Your task to perform on an android device: Open the calendar and show me this week's events? Image 0: 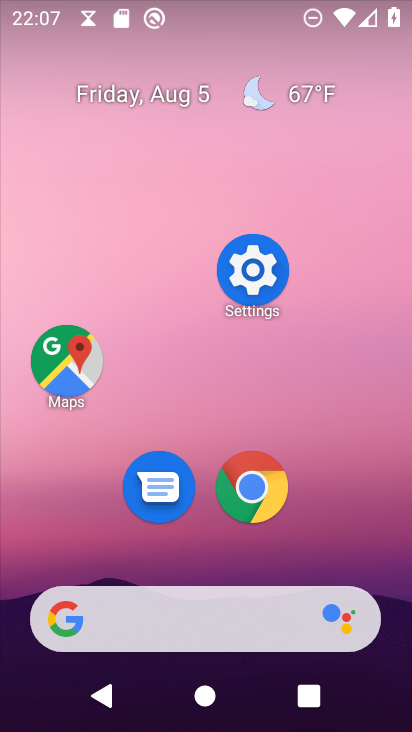
Step 0: press home button
Your task to perform on an android device: Open the calendar and show me this week's events? Image 1: 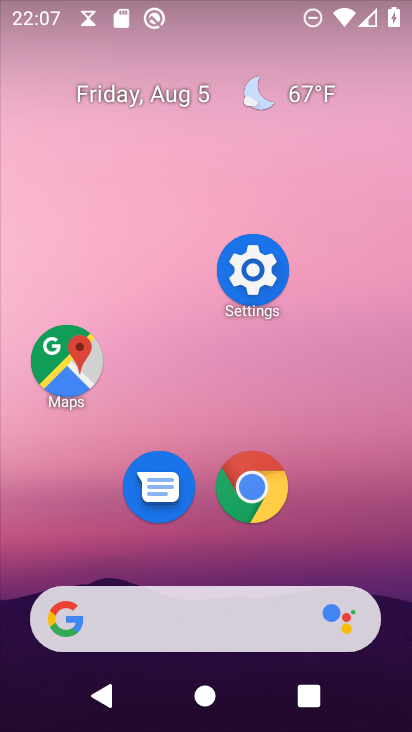
Step 1: drag from (203, 613) to (280, 131)
Your task to perform on an android device: Open the calendar and show me this week's events? Image 2: 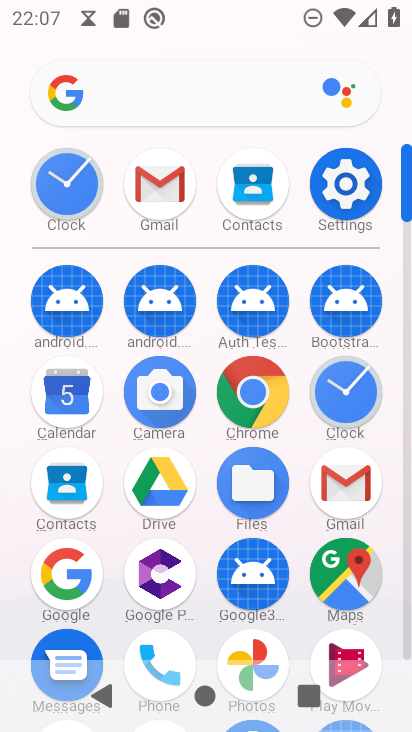
Step 2: click (159, 189)
Your task to perform on an android device: Open the calendar and show me this week's events? Image 3: 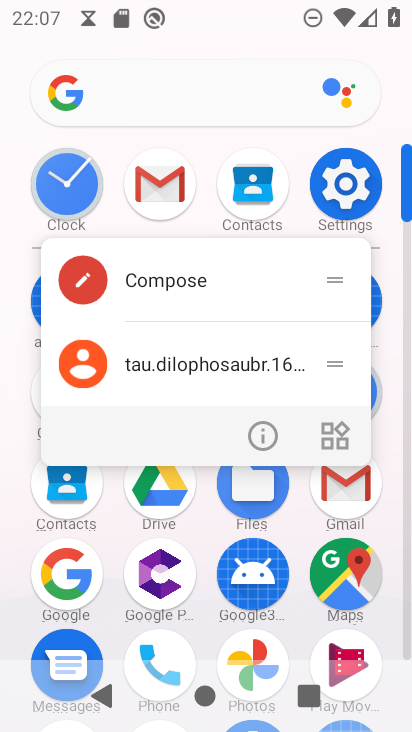
Step 3: drag from (175, 615) to (302, 123)
Your task to perform on an android device: Open the calendar and show me this week's events? Image 4: 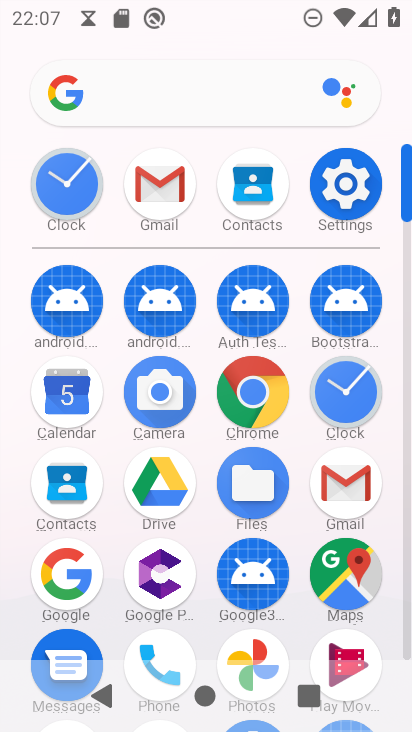
Step 4: click (69, 399)
Your task to perform on an android device: Open the calendar and show me this week's events? Image 5: 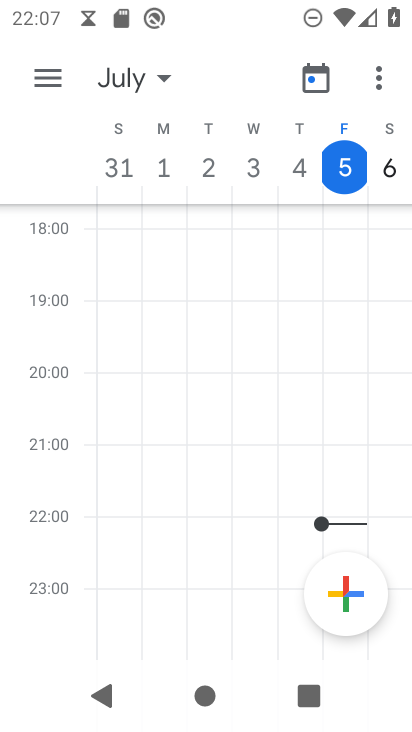
Step 5: click (109, 77)
Your task to perform on an android device: Open the calendar and show me this week's events? Image 6: 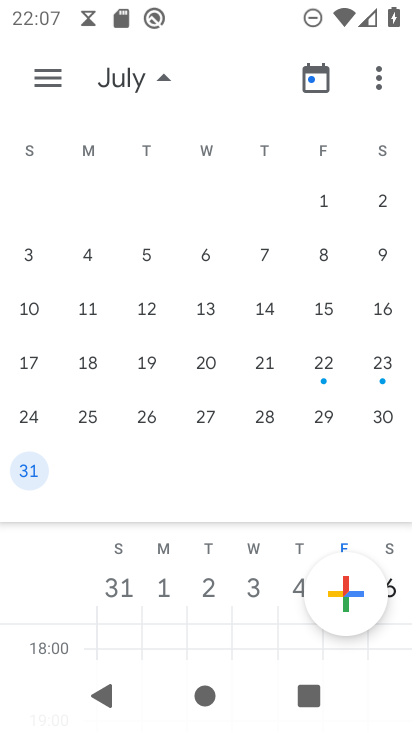
Step 6: drag from (370, 391) to (3, 349)
Your task to perform on an android device: Open the calendar and show me this week's events? Image 7: 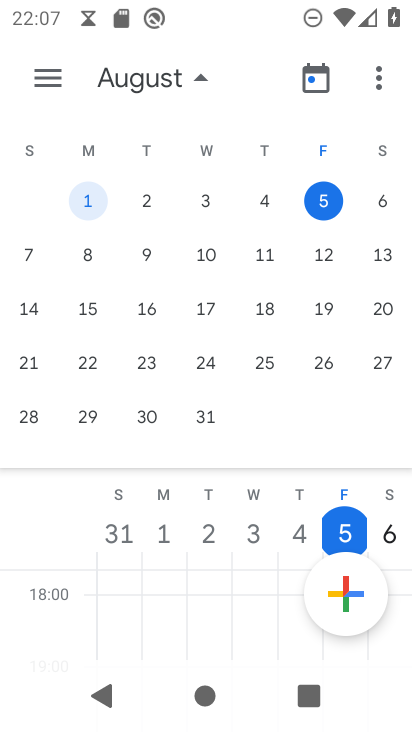
Step 7: click (325, 192)
Your task to perform on an android device: Open the calendar and show me this week's events? Image 8: 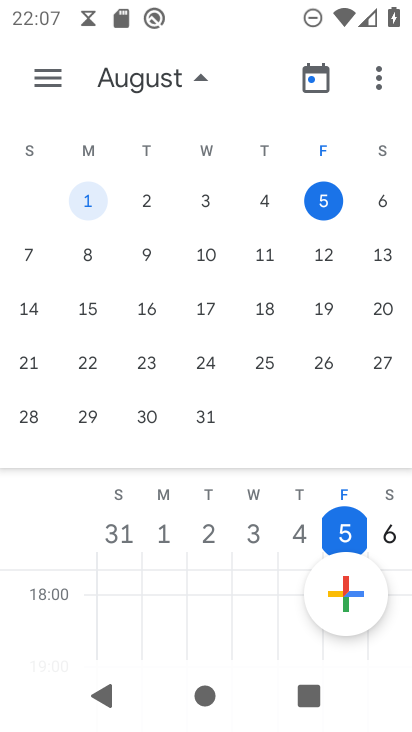
Step 8: click (45, 78)
Your task to perform on an android device: Open the calendar and show me this week's events? Image 9: 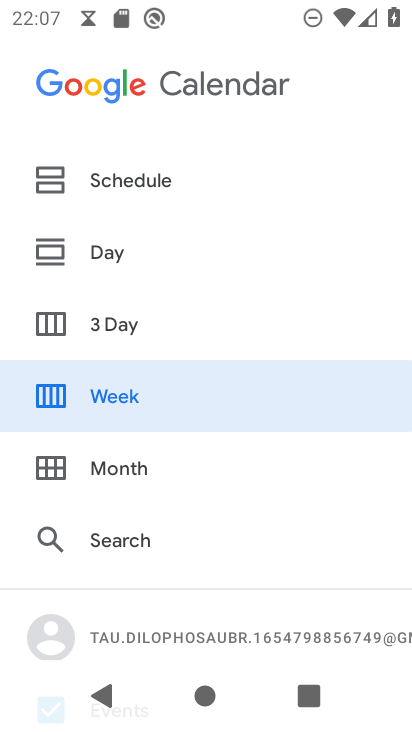
Step 9: click (127, 388)
Your task to perform on an android device: Open the calendar and show me this week's events? Image 10: 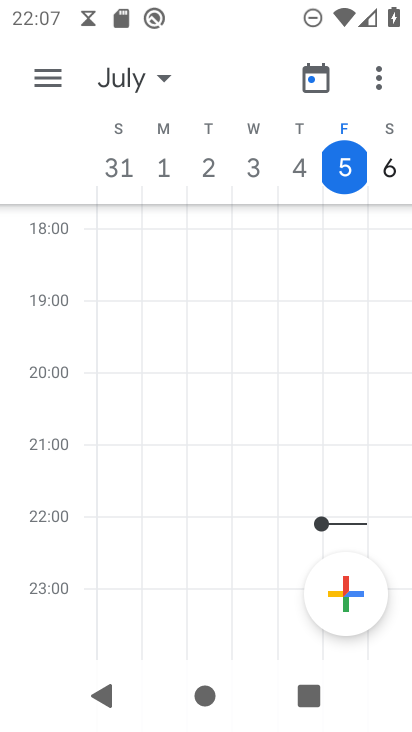
Step 10: click (45, 82)
Your task to perform on an android device: Open the calendar and show me this week's events? Image 11: 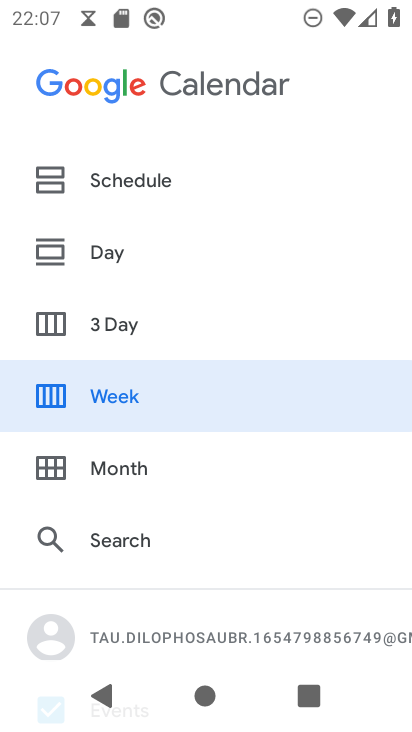
Step 11: click (127, 174)
Your task to perform on an android device: Open the calendar and show me this week's events? Image 12: 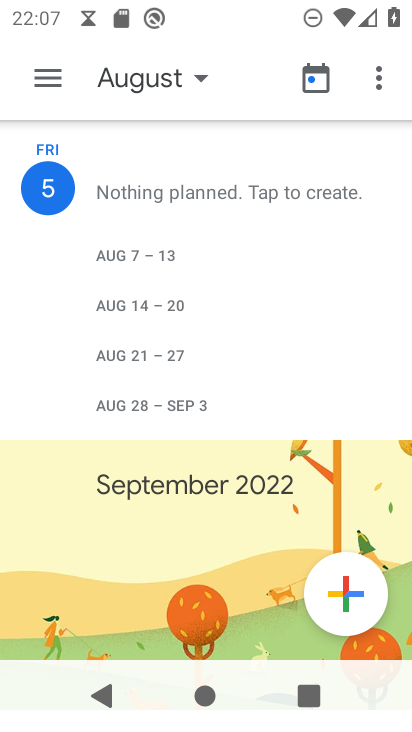
Step 12: task complete